Your task to perform on an android device: Open Google Chrome and click the shortcut for Amazon.com Image 0: 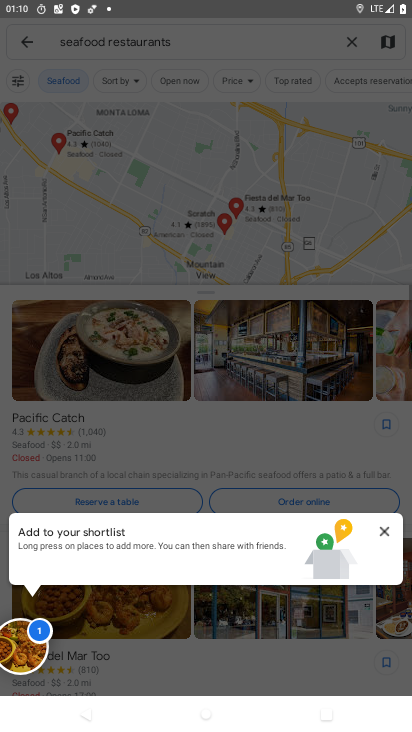
Step 0: press home button
Your task to perform on an android device: Open Google Chrome and click the shortcut for Amazon.com Image 1: 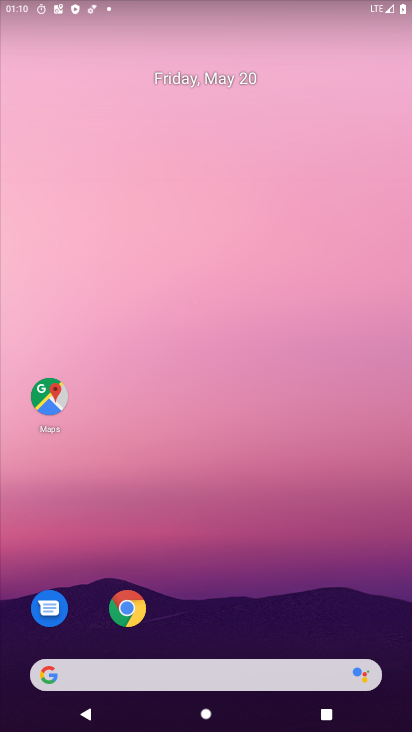
Step 1: drag from (354, 577) to (312, 146)
Your task to perform on an android device: Open Google Chrome and click the shortcut for Amazon.com Image 2: 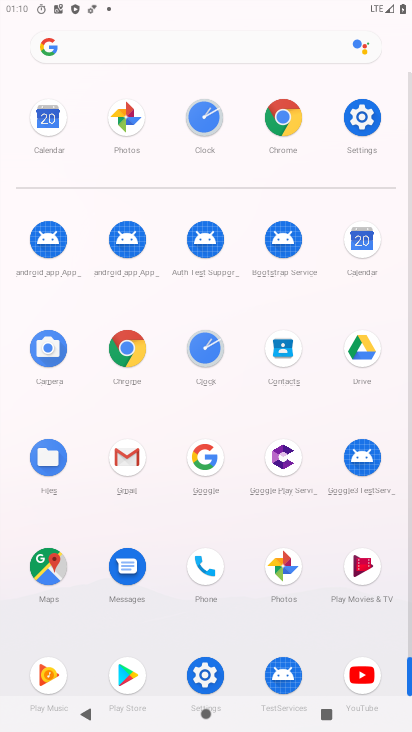
Step 2: click (127, 350)
Your task to perform on an android device: Open Google Chrome and click the shortcut for Amazon.com Image 3: 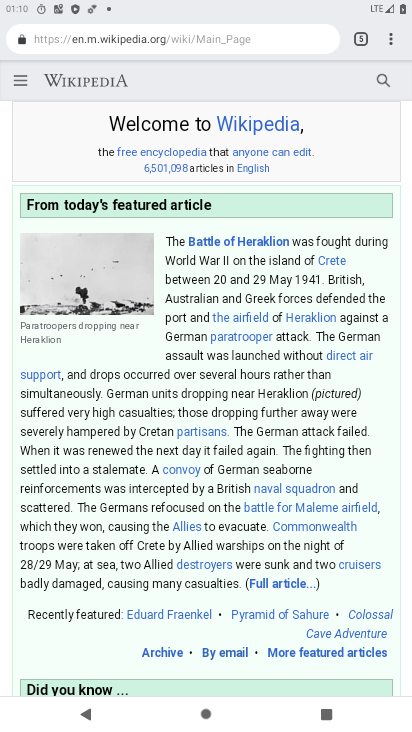
Step 3: click (356, 46)
Your task to perform on an android device: Open Google Chrome and click the shortcut for Amazon.com Image 4: 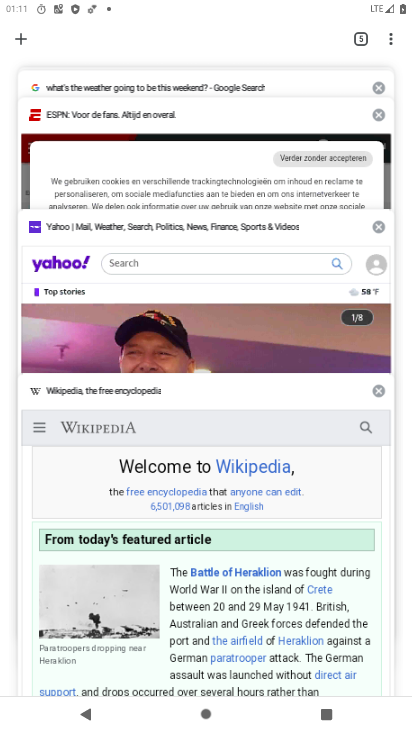
Step 4: click (20, 37)
Your task to perform on an android device: Open Google Chrome and click the shortcut for Amazon.com Image 5: 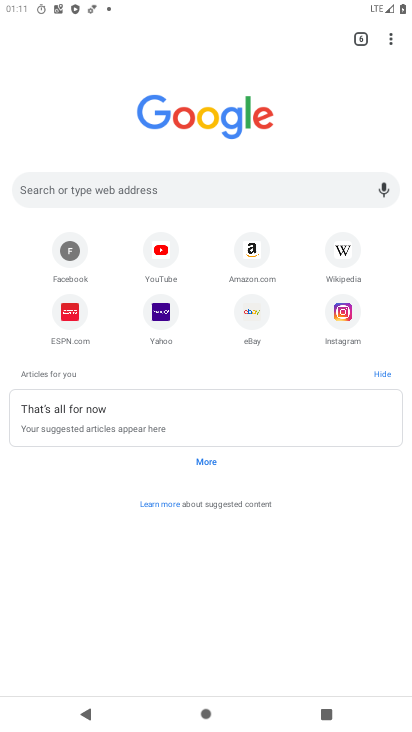
Step 5: click (255, 245)
Your task to perform on an android device: Open Google Chrome and click the shortcut for Amazon.com Image 6: 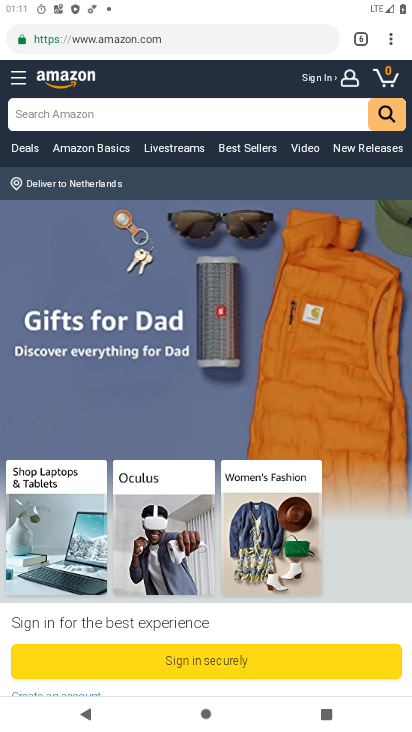
Step 6: task complete